Your task to perform on an android device: Go to accessibility settings Image 0: 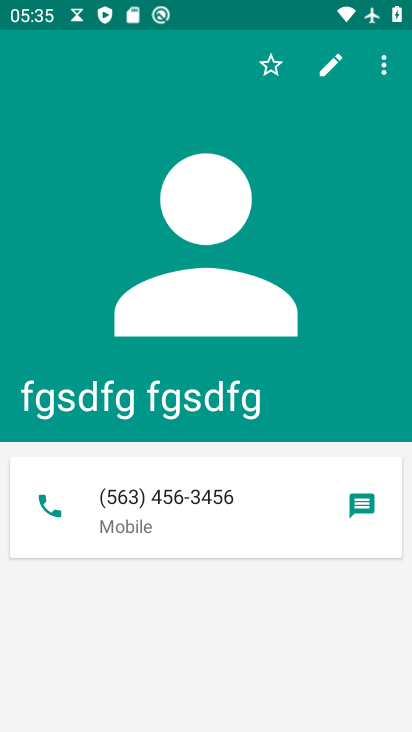
Step 0: press home button
Your task to perform on an android device: Go to accessibility settings Image 1: 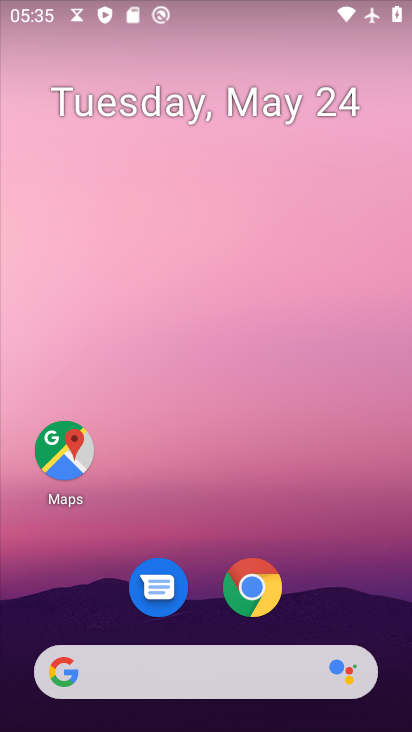
Step 1: drag from (337, 576) to (242, 102)
Your task to perform on an android device: Go to accessibility settings Image 2: 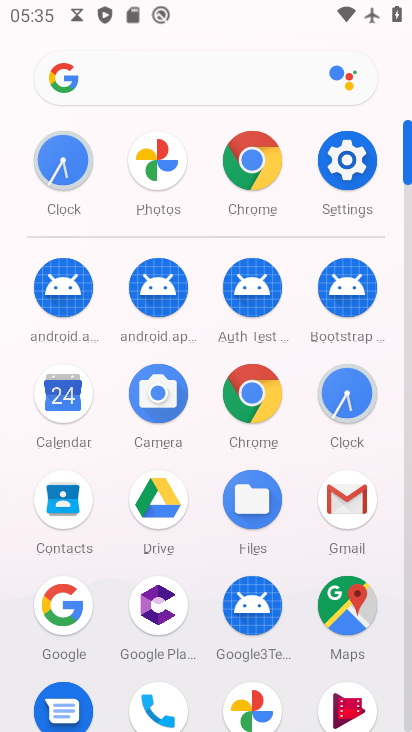
Step 2: click (352, 178)
Your task to perform on an android device: Go to accessibility settings Image 3: 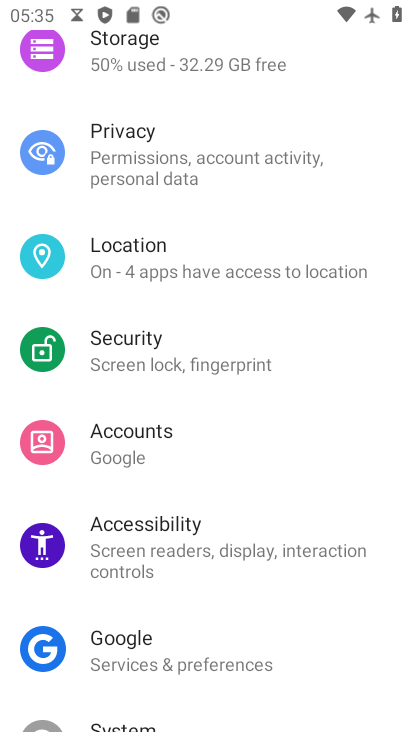
Step 3: click (219, 551)
Your task to perform on an android device: Go to accessibility settings Image 4: 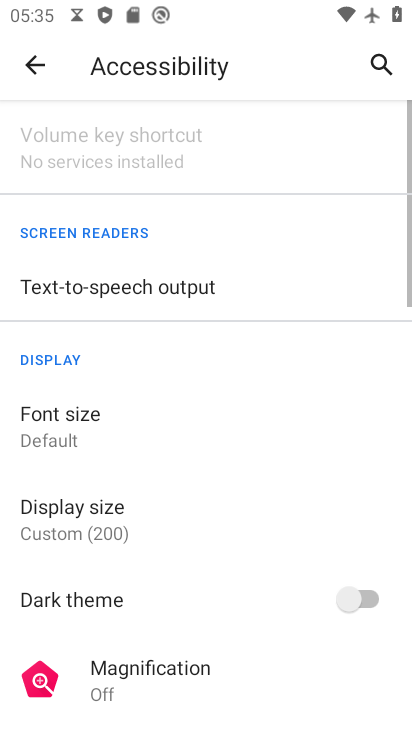
Step 4: task complete